Your task to perform on an android device: Go to CNN.com Image 0: 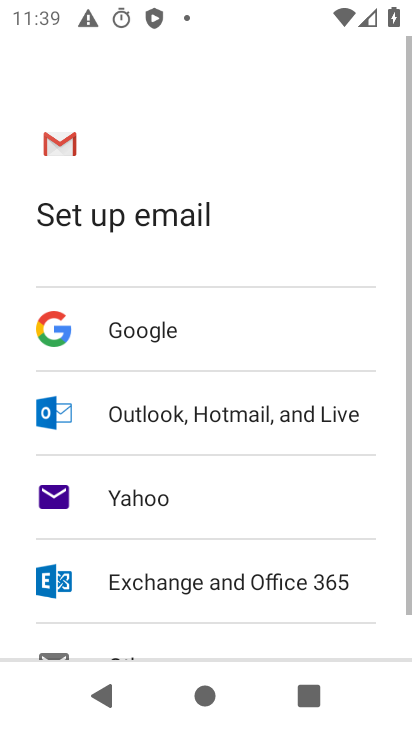
Step 0: press home button
Your task to perform on an android device: Go to CNN.com Image 1: 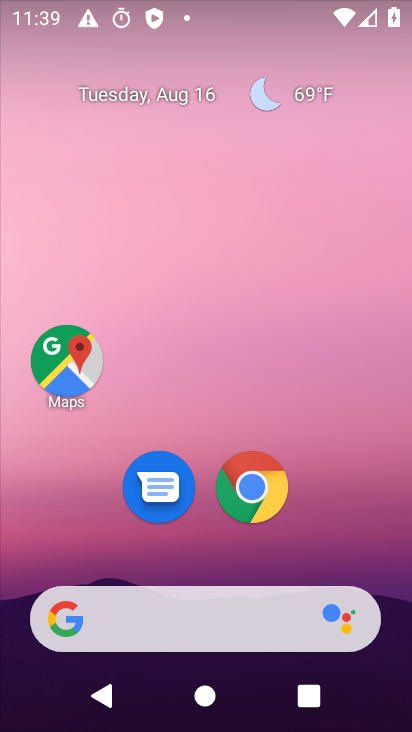
Step 1: click (265, 472)
Your task to perform on an android device: Go to CNN.com Image 2: 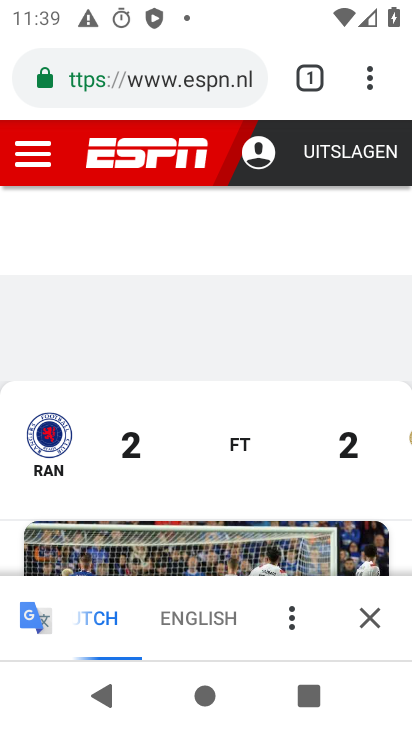
Step 2: click (168, 70)
Your task to perform on an android device: Go to CNN.com Image 3: 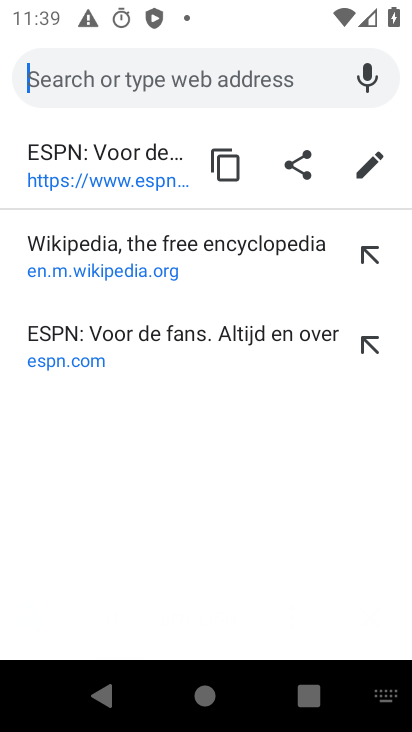
Step 3: type "cnn.com"
Your task to perform on an android device: Go to CNN.com Image 4: 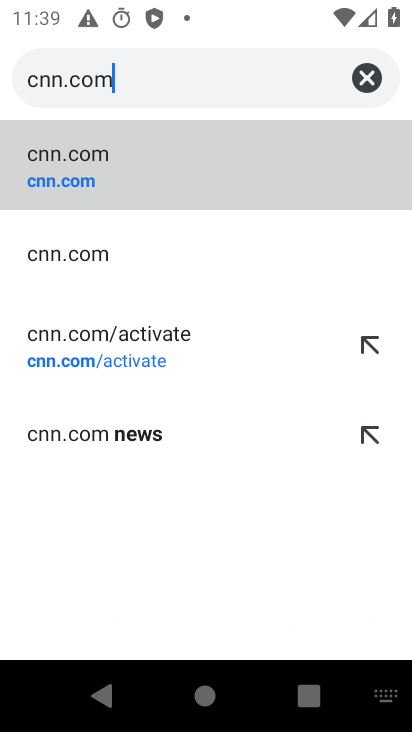
Step 4: click (266, 164)
Your task to perform on an android device: Go to CNN.com Image 5: 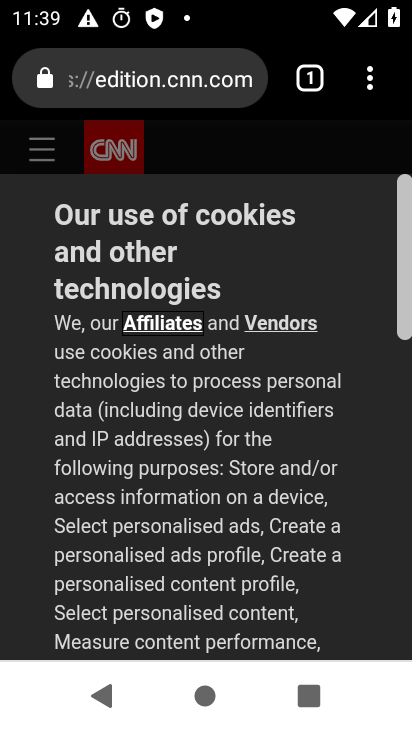
Step 5: task complete